Your task to perform on an android device: toggle notifications settings in the gmail app Image 0: 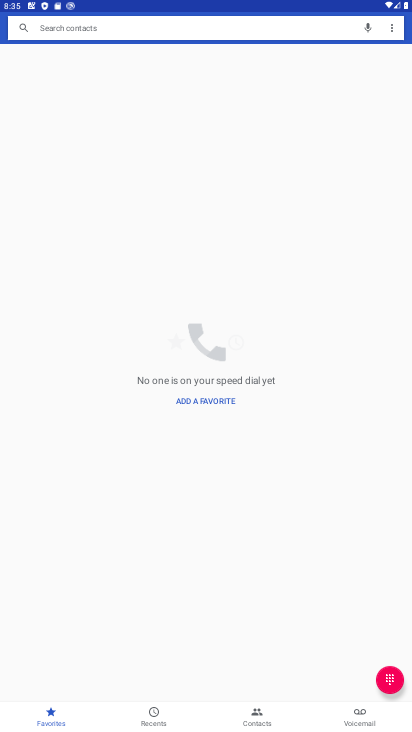
Step 0: press home button
Your task to perform on an android device: toggle notifications settings in the gmail app Image 1: 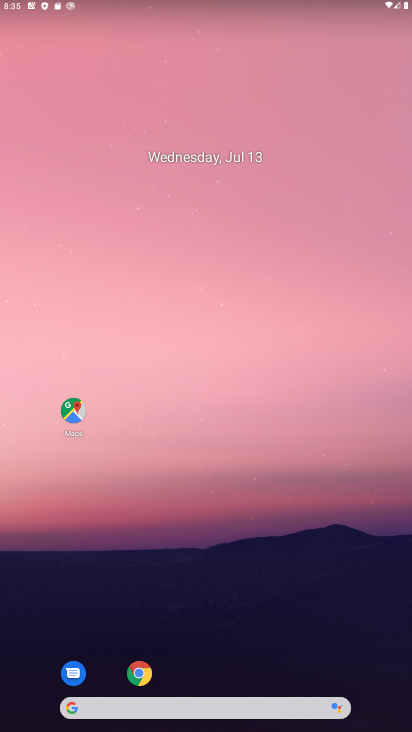
Step 1: drag from (328, 563) to (264, 138)
Your task to perform on an android device: toggle notifications settings in the gmail app Image 2: 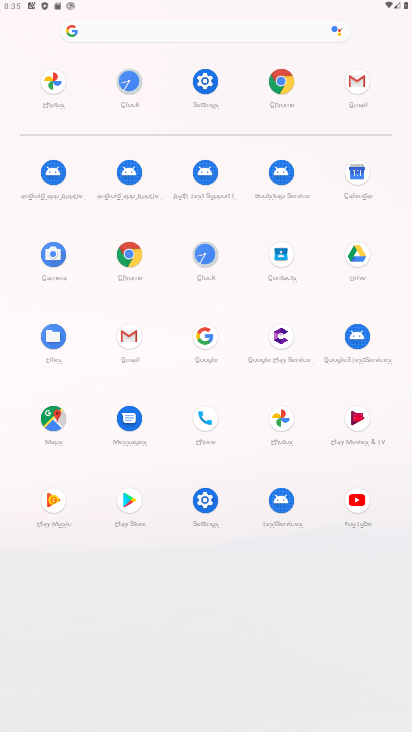
Step 2: click (360, 79)
Your task to perform on an android device: toggle notifications settings in the gmail app Image 3: 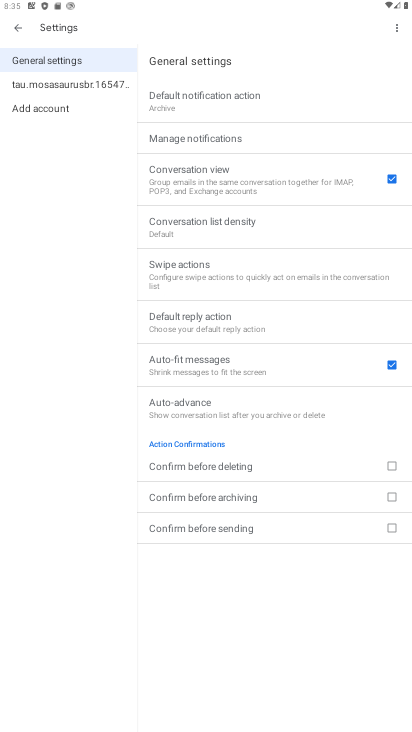
Step 3: click (86, 87)
Your task to perform on an android device: toggle notifications settings in the gmail app Image 4: 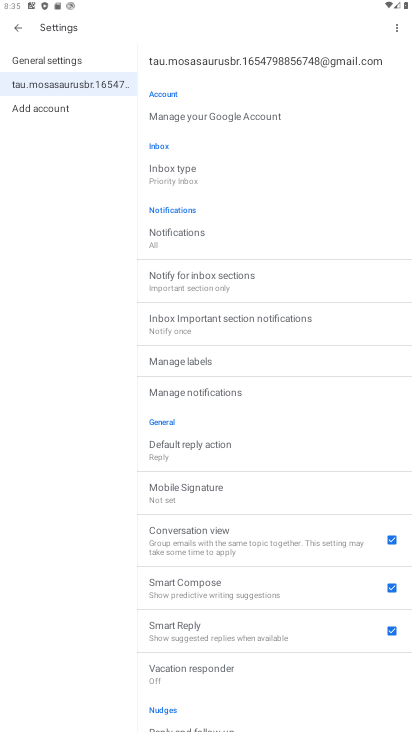
Step 4: click (219, 399)
Your task to perform on an android device: toggle notifications settings in the gmail app Image 5: 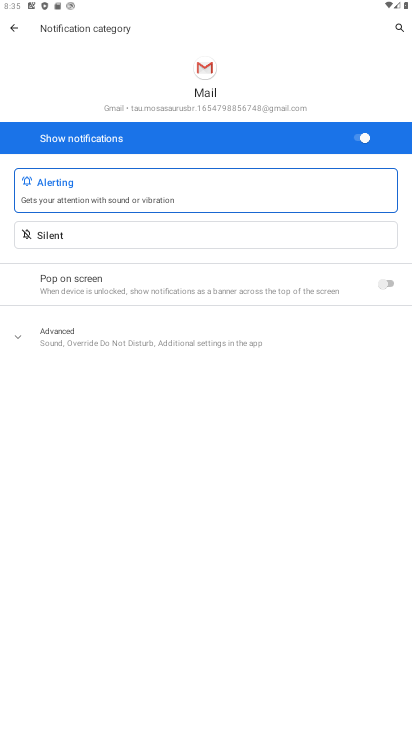
Step 5: click (362, 129)
Your task to perform on an android device: toggle notifications settings in the gmail app Image 6: 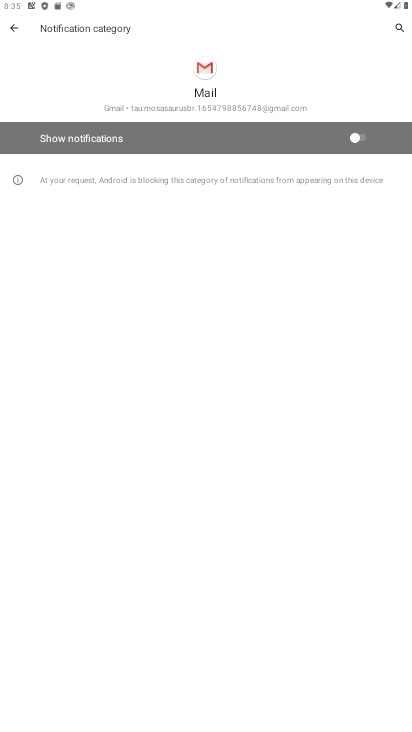
Step 6: task complete